Your task to perform on an android device: Search for pizza restaurants on Maps Image 0: 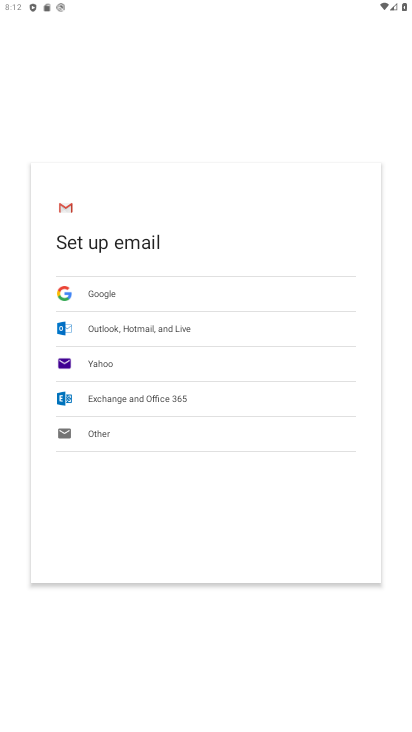
Step 0: press home button
Your task to perform on an android device: Search for pizza restaurants on Maps Image 1: 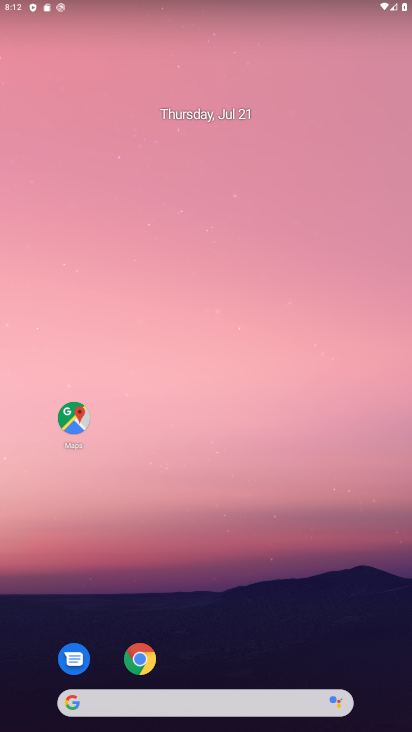
Step 1: click (73, 417)
Your task to perform on an android device: Search for pizza restaurants on Maps Image 2: 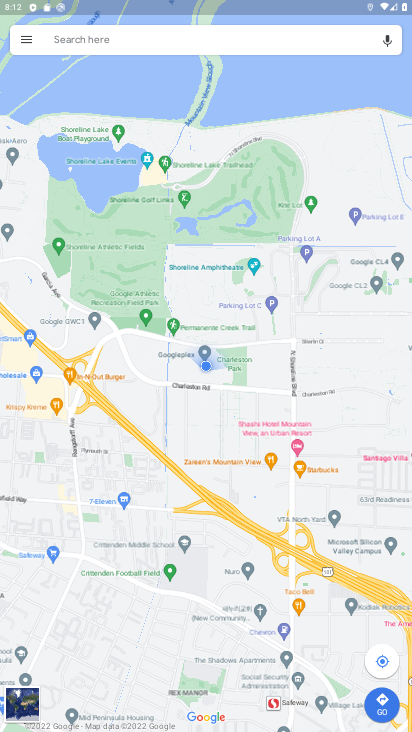
Step 2: click (124, 39)
Your task to perform on an android device: Search for pizza restaurants on Maps Image 3: 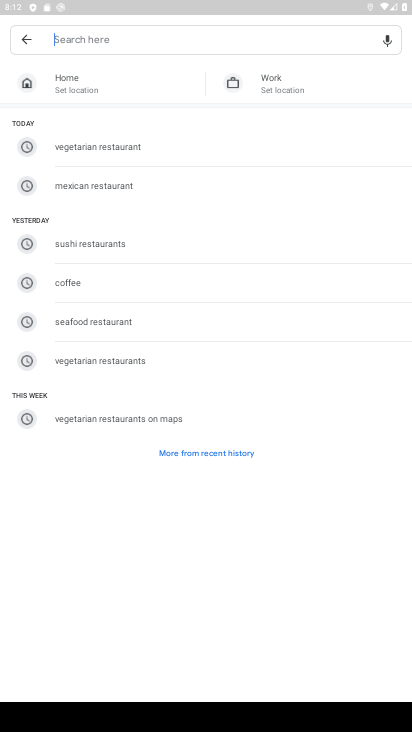
Step 3: type "pizza"
Your task to perform on an android device: Search for pizza restaurants on Maps Image 4: 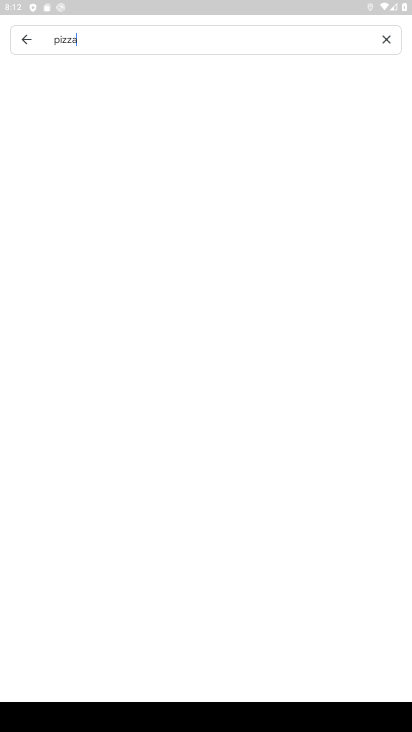
Step 4: type ""
Your task to perform on an android device: Search for pizza restaurants on Maps Image 5: 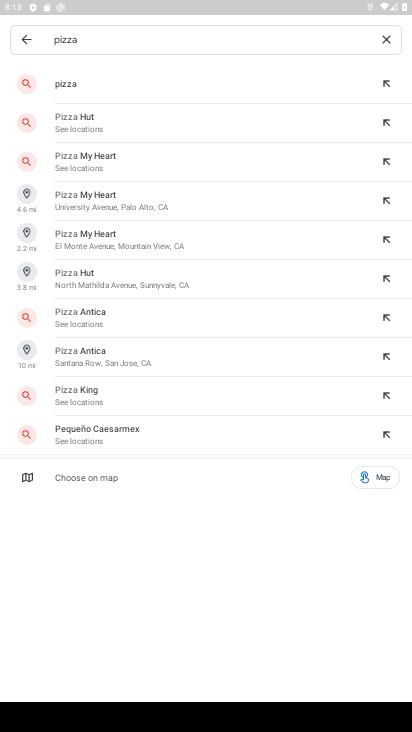
Step 5: type " "
Your task to perform on an android device: Search for pizza restaurants on Maps Image 6: 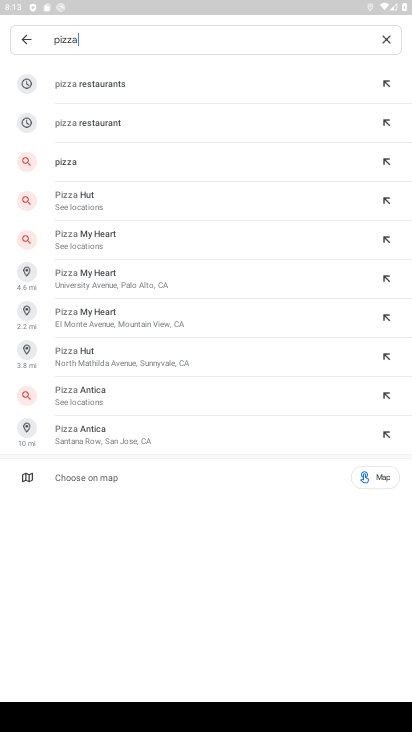
Step 6: type "restaurant"
Your task to perform on an android device: Search for pizza restaurants on Maps Image 7: 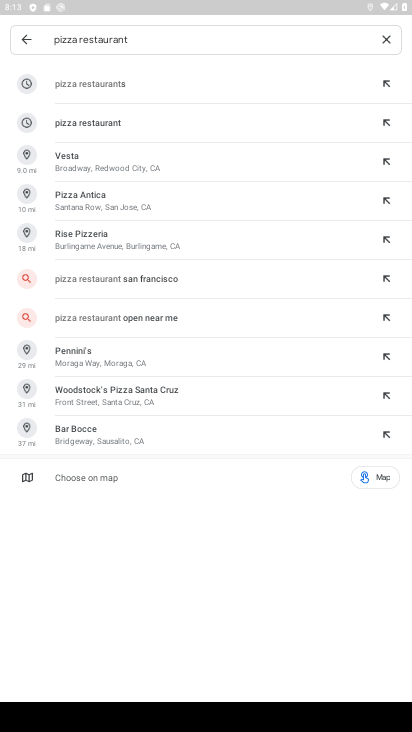
Step 7: click (140, 78)
Your task to perform on an android device: Search for pizza restaurants on Maps Image 8: 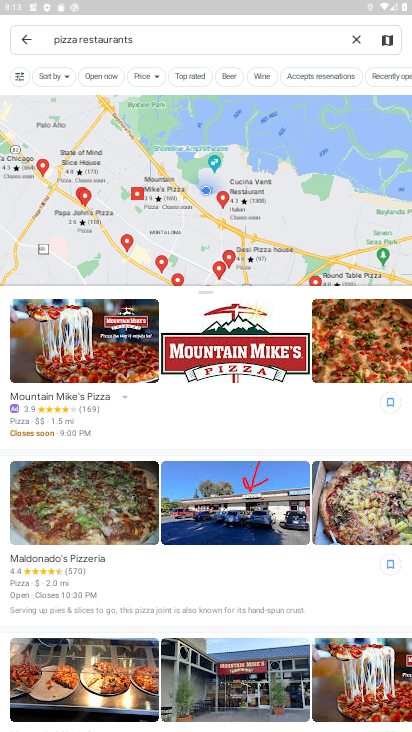
Step 8: task complete